Your task to perform on an android device: manage bookmarks in the chrome app Image 0: 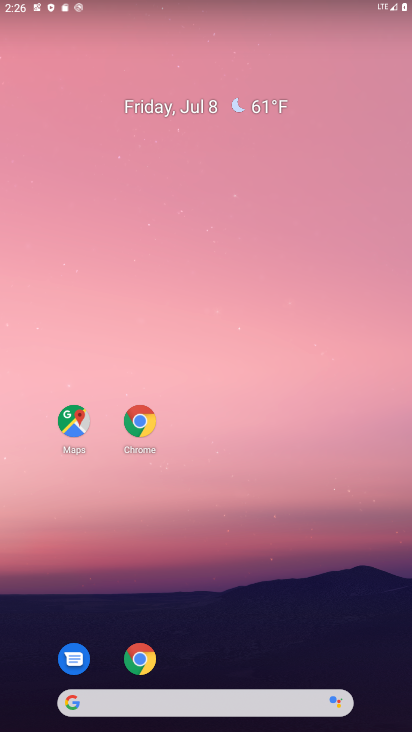
Step 0: click (126, 413)
Your task to perform on an android device: manage bookmarks in the chrome app Image 1: 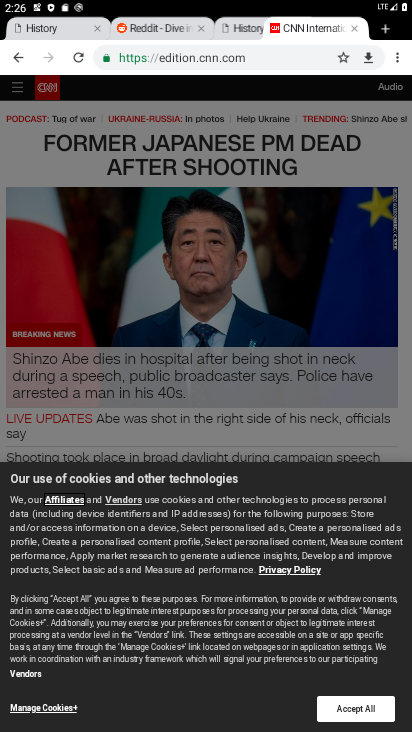
Step 1: task complete